Your task to perform on an android device: Open Reddit.com Image 0: 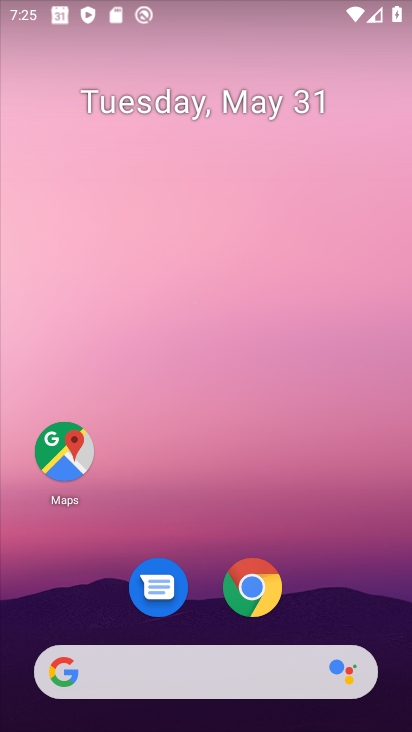
Step 0: click (259, 581)
Your task to perform on an android device: Open Reddit.com Image 1: 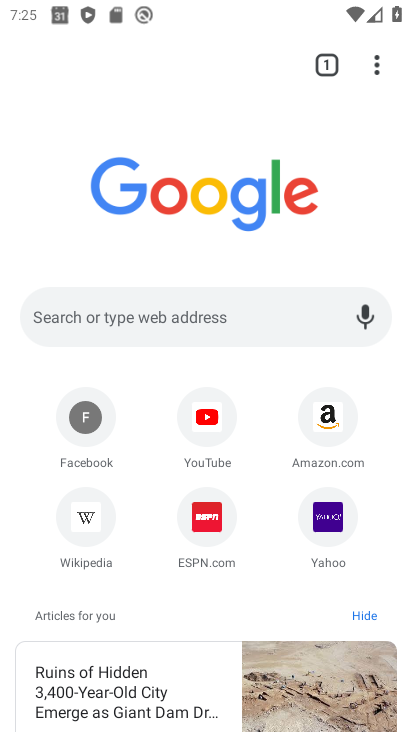
Step 1: click (163, 316)
Your task to perform on an android device: Open Reddit.com Image 2: 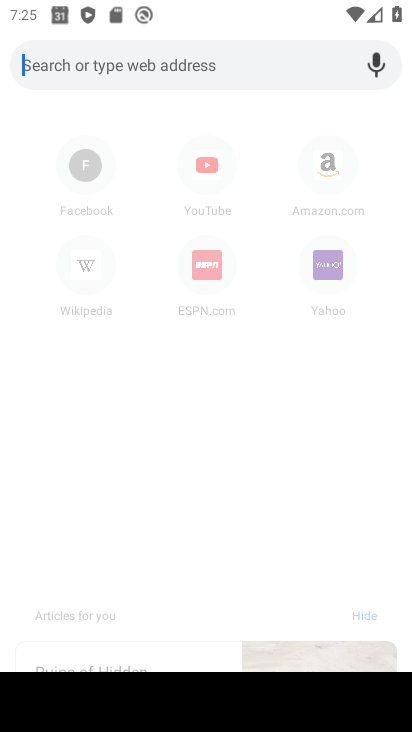
Step 2: type "www.reddit.com"
Your task to perform on an android device: Open Reddit.com Image 3: 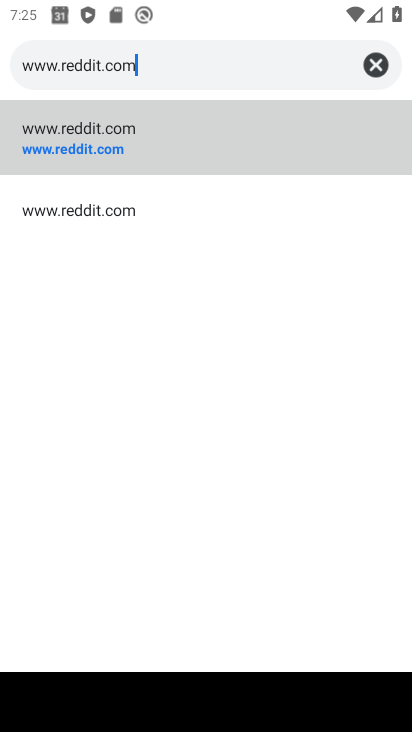
Step 3: click (83, 142)
Your task to perform on an android device: Open Reddit.com Image 4: 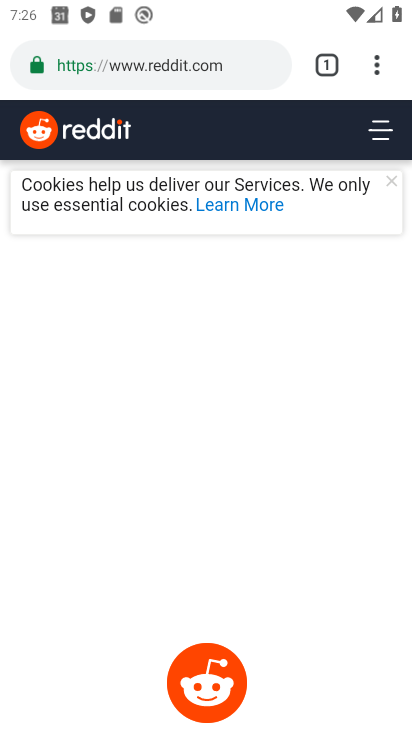
Step 4: task complete